Your task to perform on an android device: What's the weather today? Image 0: 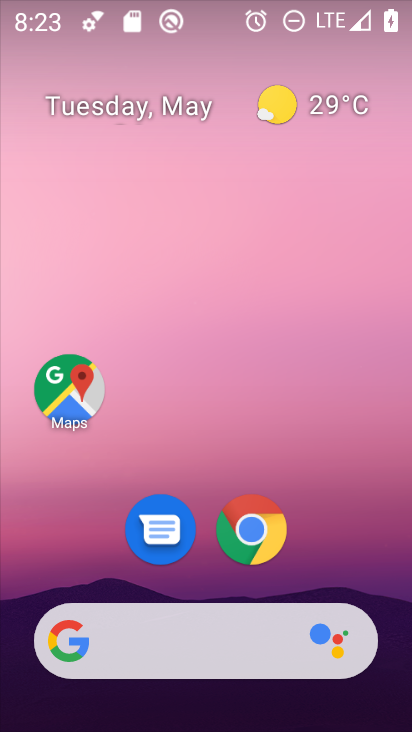
Step 0: drag from (395, 621) to (241, 124)
Your task to perform on an android device: What's the weather today? Image 1: 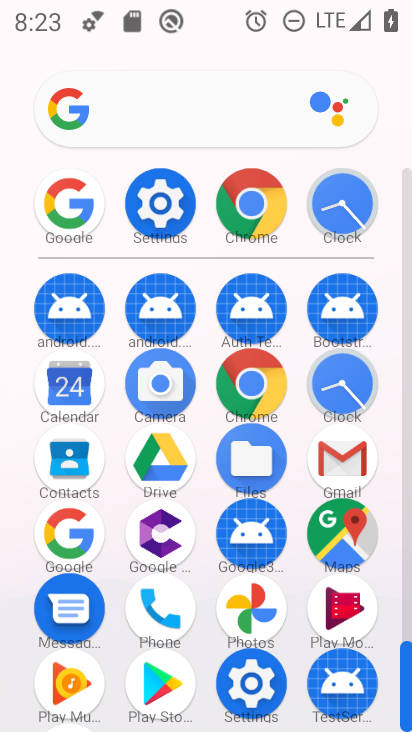
Step 1: click (73, 528)
Your task to perform on an android device: What's the weather today? Image 2: 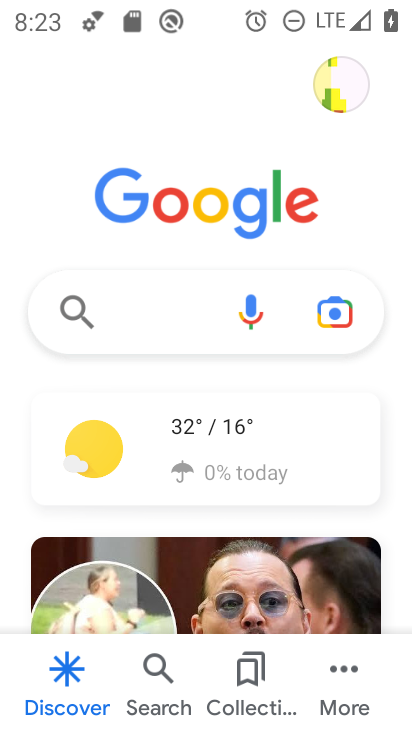
Step 2: click (135, 318)
Your task to perform on an android device: What's the weather today? Image 3: 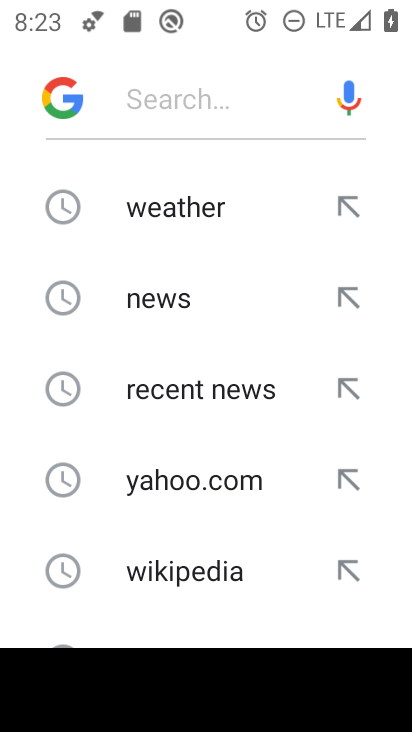
Step 3: drag from (161, 556) to (206, 110)
Your task to perform on an android device: What's the weather today? Image 4: 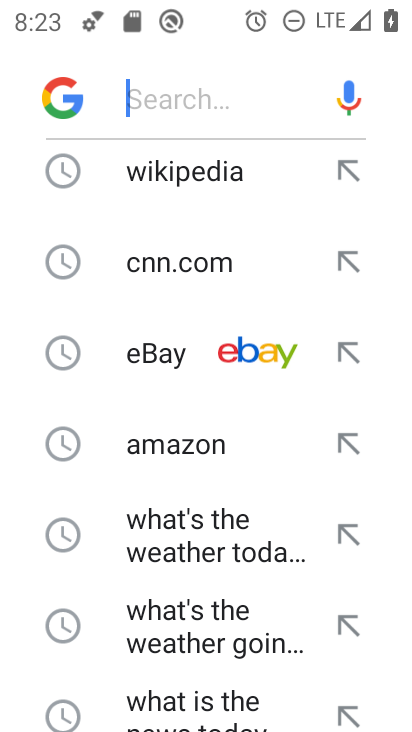
Step 4: drag from (113, 586) to (116, 238)
Your task to perform on an android device: What's the weather today? Image 5: 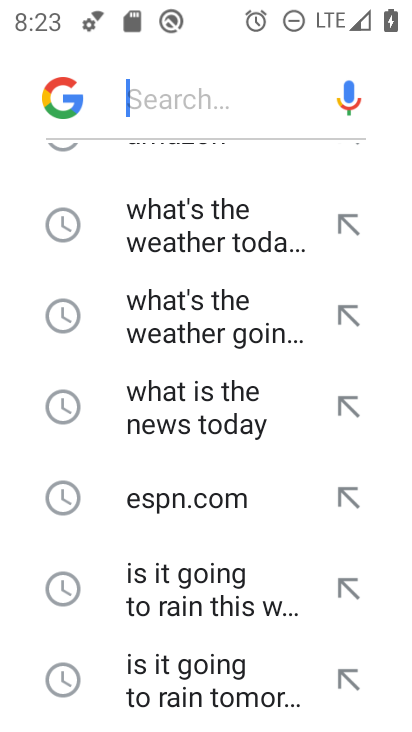
Step 5: click (224, 229)
Your task to perform on an android device: What's the weather today? Image 6: 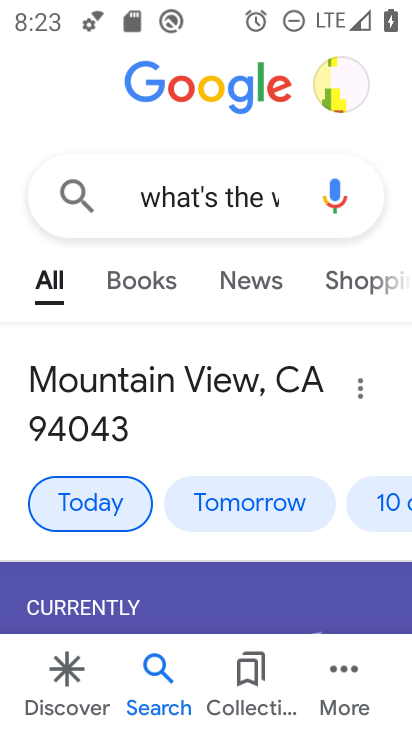
Step 6: task complete